Your task to perform on an android device: Go to Amazon Image 0: 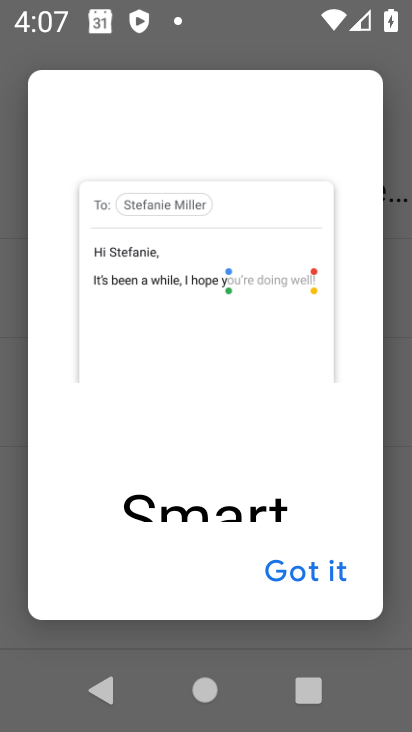
Step 0: press home button
Your task to perform on an android device: Go to Amazon Image 1: 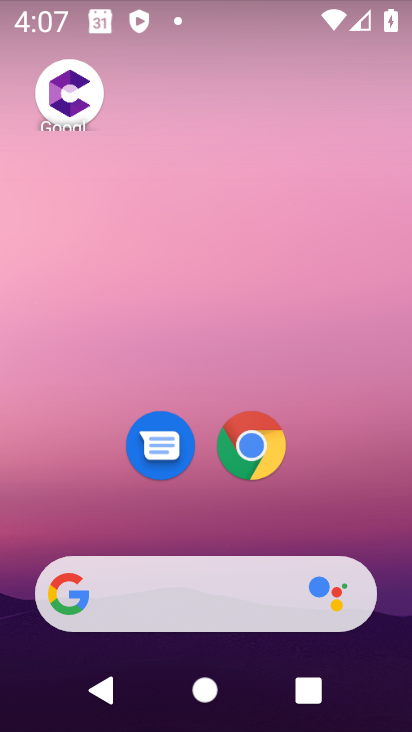
Step 1: click (247, 445)
Your task to perform on an android device: Go to Amazon Image 2: 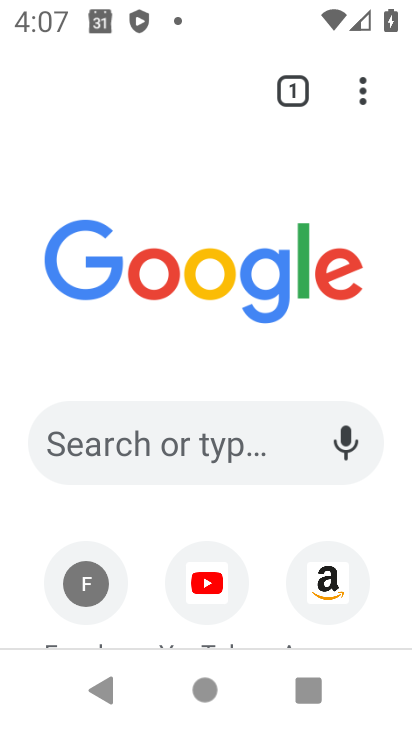
Step 2: click (343, 597)
Your task to perform on an android device: Go to Amazon Image 3: 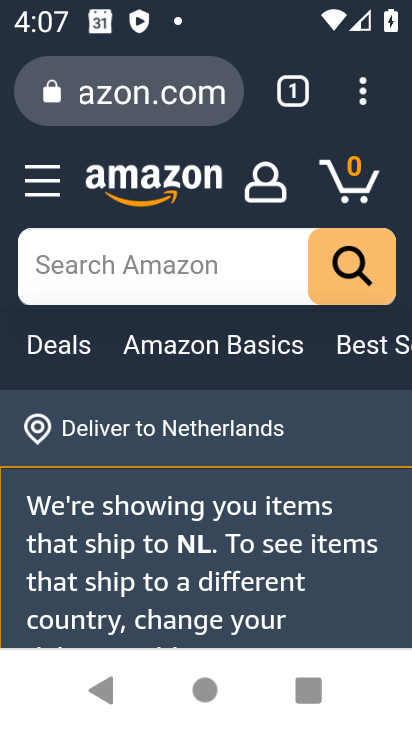
Step 3: task complete